Your task to perform on an android device: move a message to another label in the gmail app Image 0: 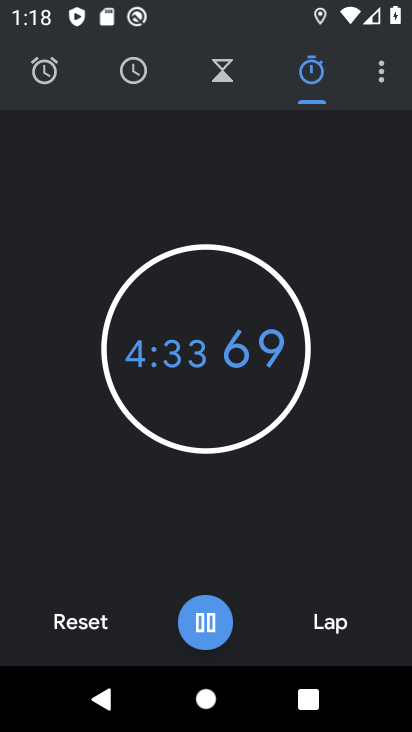
Step 0: press home button
Your task to perform on an android device: move a message to another label in the gmail app Image 1: 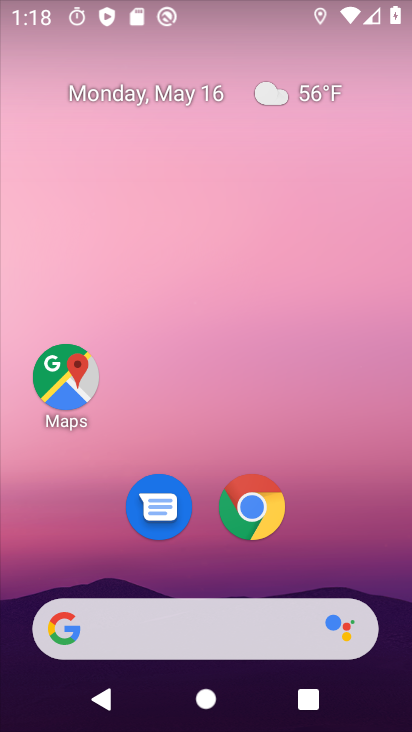
Step 1: drag from (213, 549) to (219, 132)
Your task to perform on an android device: move a message to another label in the gmail app Image 2: 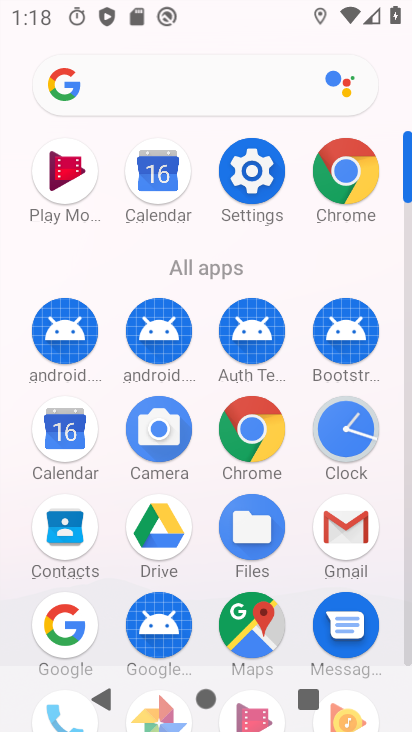
Step 2: click (343, 528)
Your task to perform on an android device: move a message to another label in the gmail app Image 3: 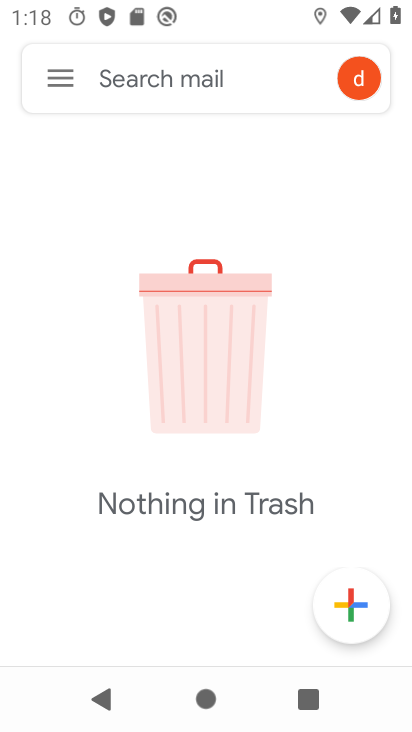
Step 3: click (57, 76)
Your task to perform on an android device: move a message to another label in the gmail app Image 4: 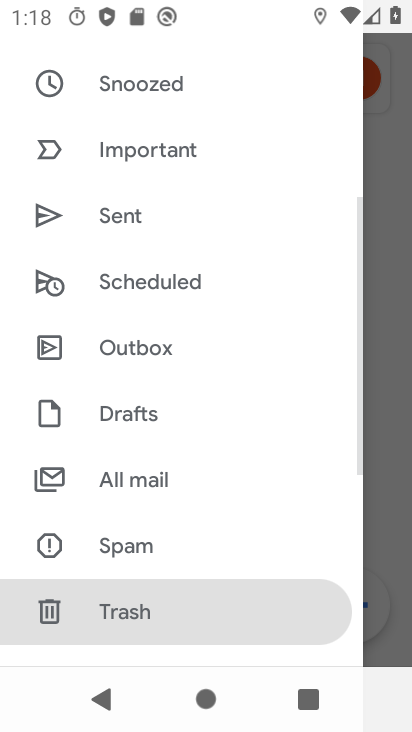
Step 4: drag from (150, 251) to (192, 200)
Your task to perform on an android device: move a message to another label in the gmail app Image 5: 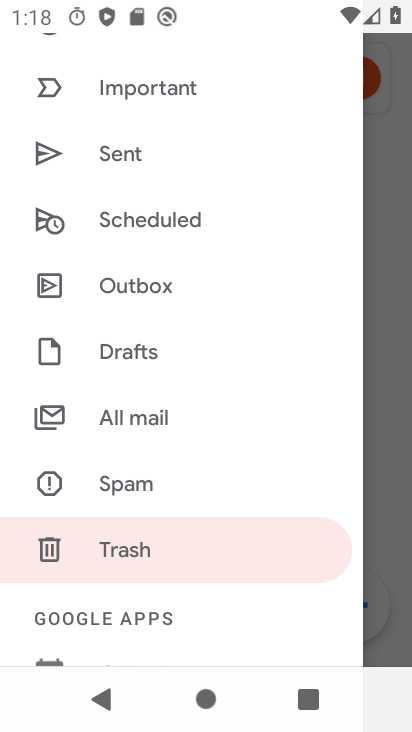
Step 5: click (127, 407)
Your task to perform on an android device: move a message to another label in the gmail app Image 6: 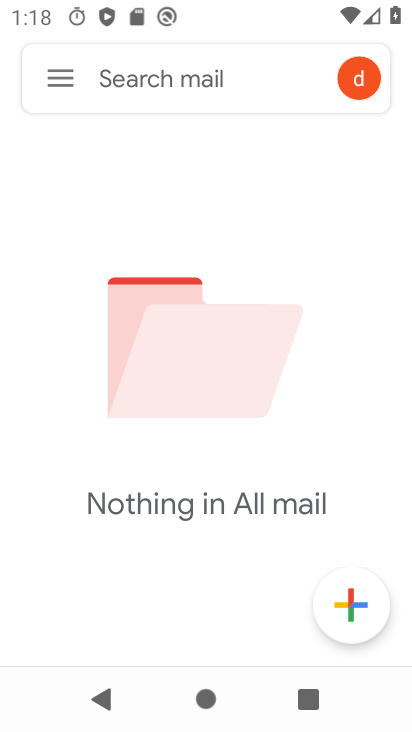
Step 6: task complete